Your task to perform on an android device: Open Google Chrome and click the shortcut for Amazon.com Image 0: 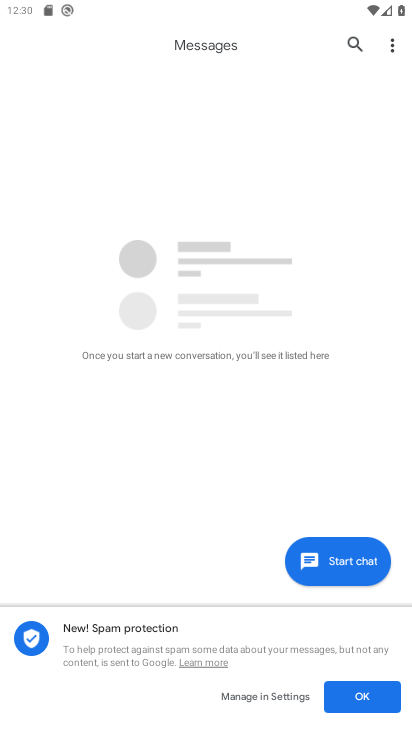
Step 0: press home button
Your task to perform on an android device: Open Google Chrome and click the shortcut for Amazon.com Image 1: 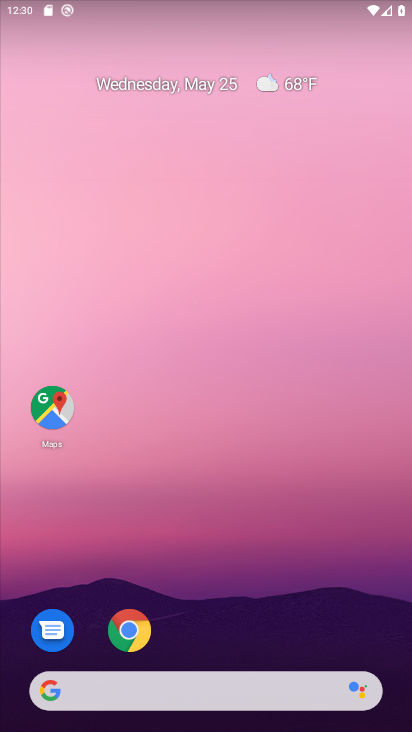
Step 1: click (134, 612)
Your task to perform on an android device: Open Google Chrome and click the shortcut for Amazon.com Image 2: 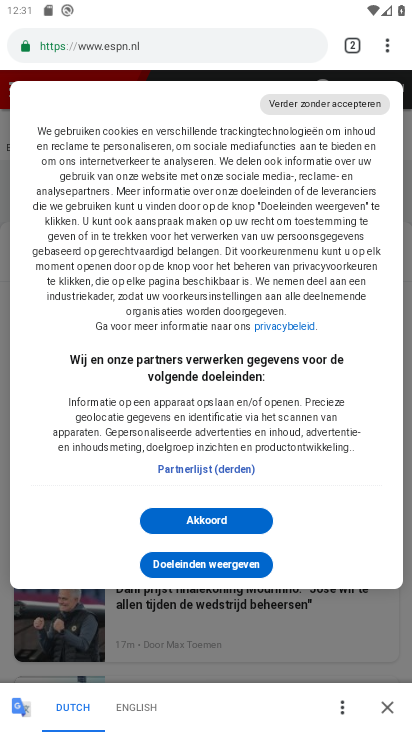
Step 2: click (301, 616)
Your task to perform on an android device: Open Google Chrome and click the shortcut for Amazon.com Image 3: 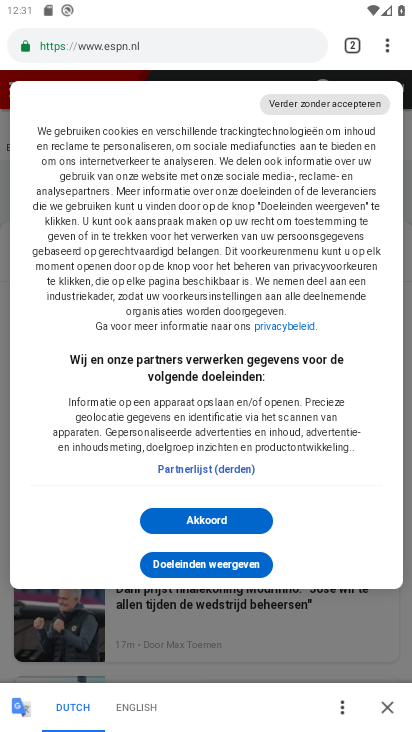
Step 3: click (362, 42)
Your task to perform on an android device: Open Google Chrome and click the shortcut for Amazon.com Image 4: 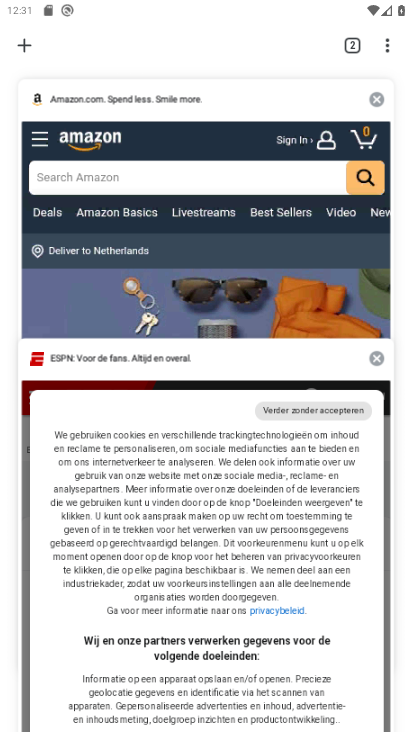
Step 4: click (115, 161)
Your task to perform on an android device: Open Google Chrome and click the shortcut for Amazon.com Image 5: 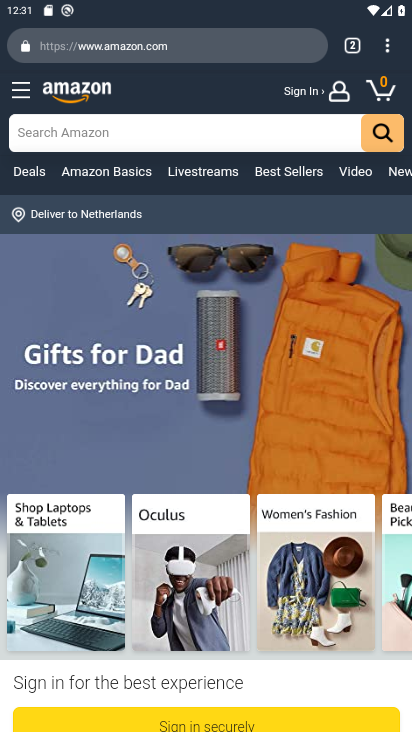
Step 5: task complete